Your task to perform on an android device: Go to notification settings Image 0: 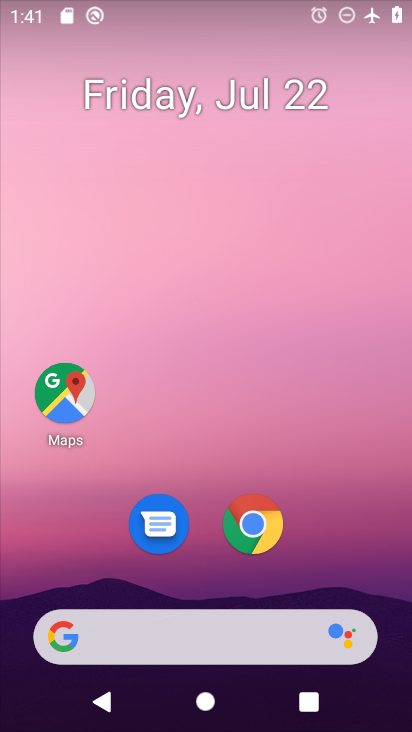
Step 0: drag from (340, 516) to (355, 51)
Your task to perform on an android device: Go to notification settings Image 1: 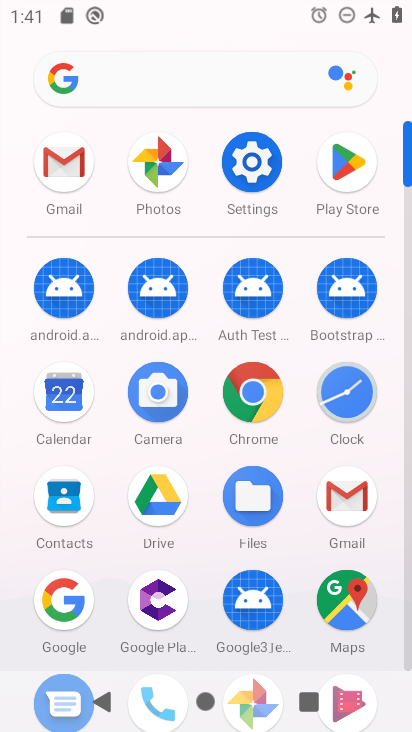
Step 1: click (262, 156)
Your task to perform on an android device: Go to notification settings Image 2: 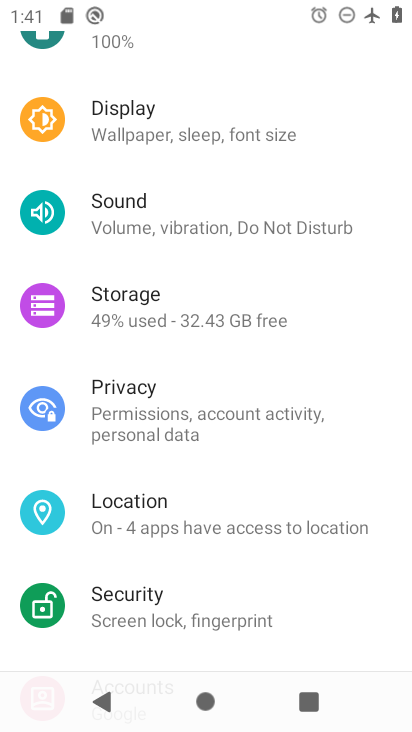
Step 2: drag from (209, 181) to (229, 650)
Your task to perform on an android device: Go to notification settings Image 3: 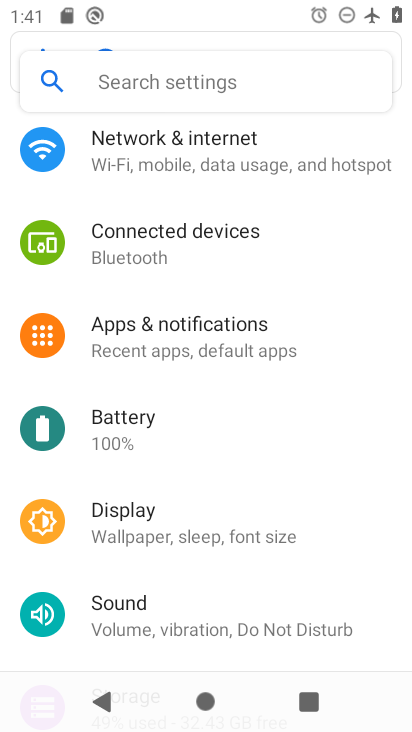
Step 3: click (227, 327)
Your task to perform on an android device: Go to notification settings Image 4: 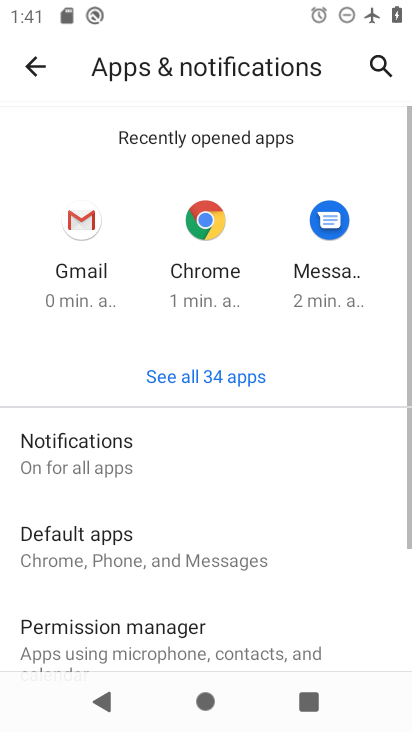
Step 4: click (110, 438)
Your task to perform on an android device: Go to notification settings Image 5: 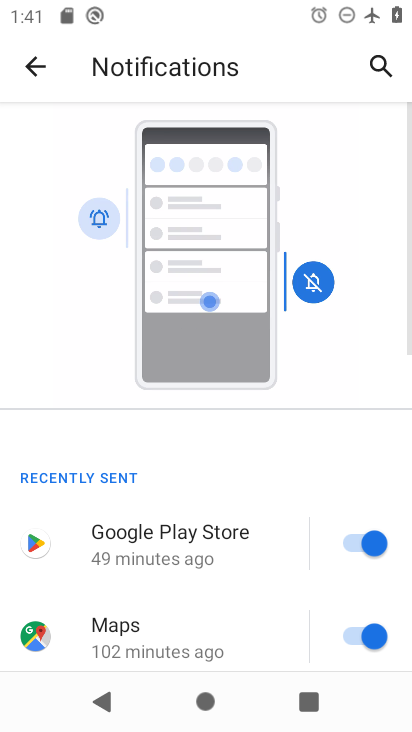
Step 5: task complete